Your task to perform on an android device: search for starred emails in the gmail app Image 0: 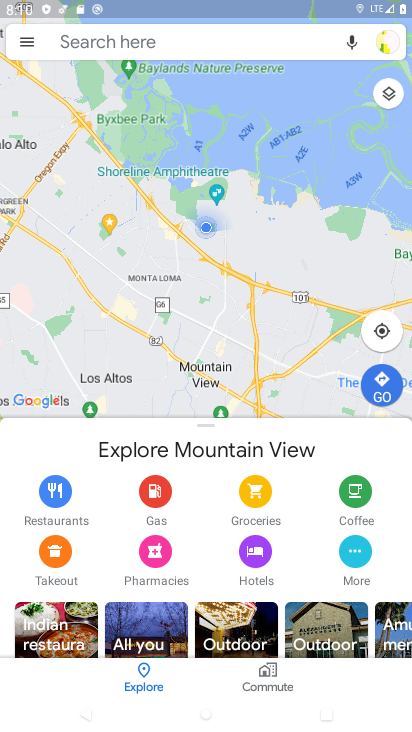
Step 0: press home button
Your task to perform on an android device: search for starred emails in the gmail app Image 1: 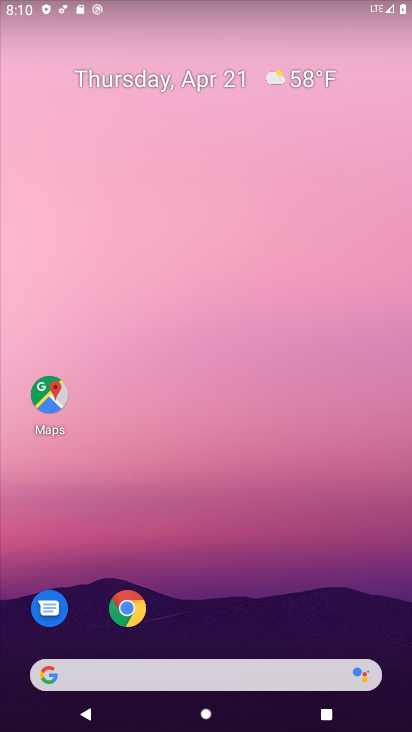
Step 1: drag from (286, 583) to (299, 62)
Your task to perform on an android device: search for starred emails in the gmail app Image 2: 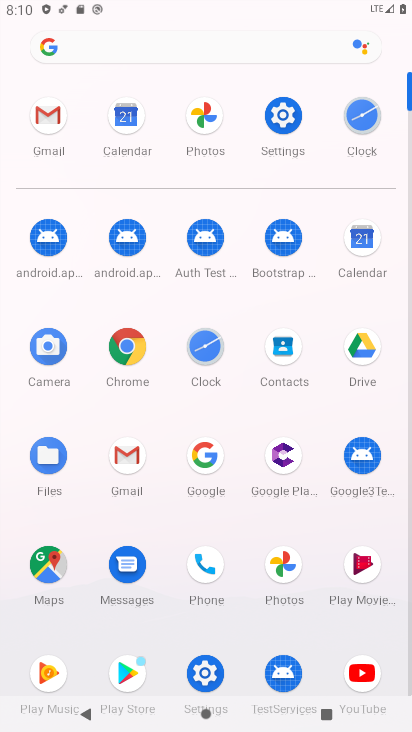
Step 2: click (46, 114)
Your task to perform on an android device: search for starred emails in the gmail app Image 3: 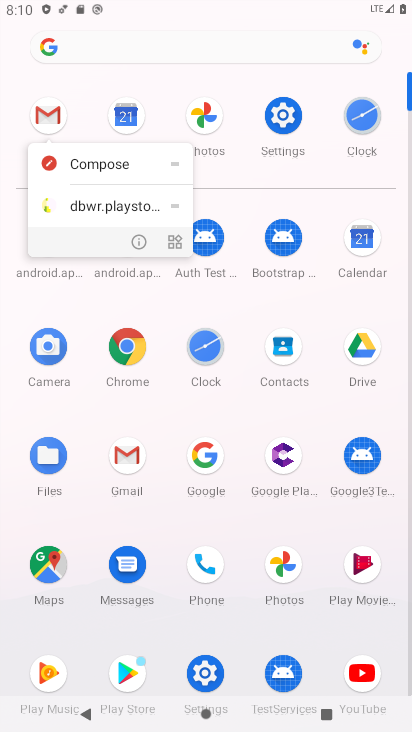
Step 3: click (41, 116)
Your task to perform on an android device: search for starred emails in the gmail app Image 4: 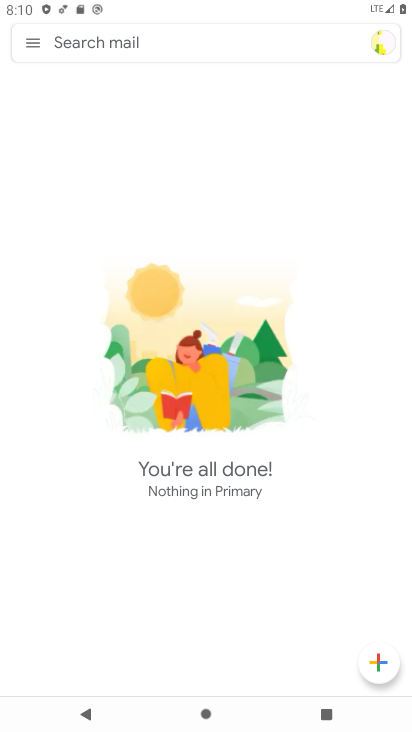
Step 4: click (32, 39)
Your task to perform on an android device: search for starred emails in the gmail app Image 5: 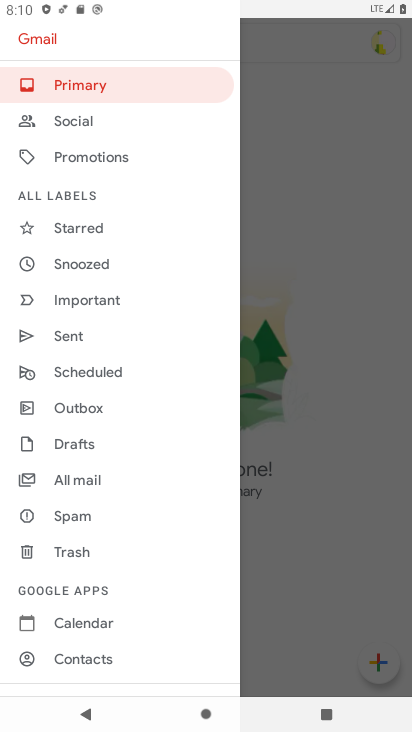
Step 5: click (94, 227)
Your task to perform on an android device: search for starred emails in the gmail app Image 6: 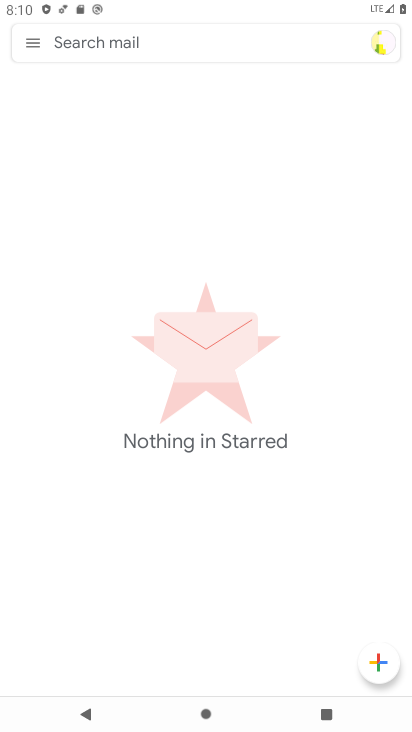
Step 6: task complete